Your task to perform on an android device: Open Maps and search for coffee Image 0: 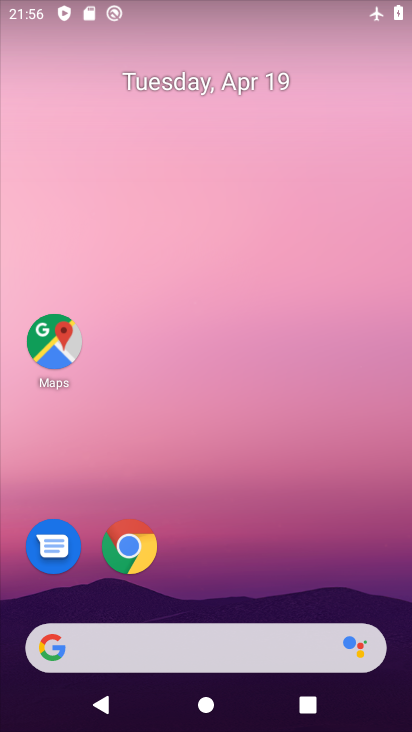
Step 0: click (54, 359)
Your task to perform on an android device: Open Maps and search for coffee Image 1: 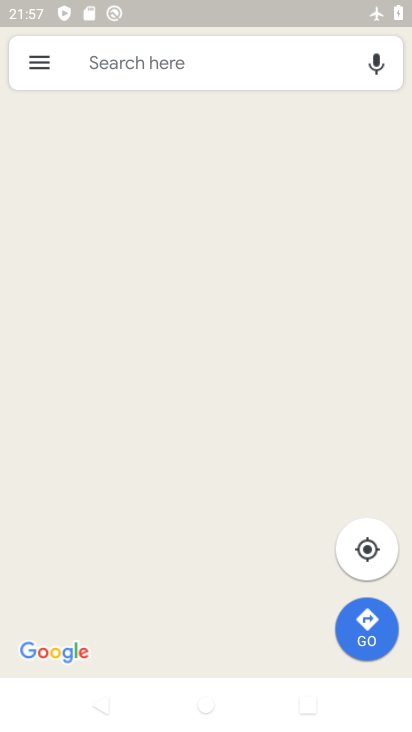
Step 1: click (165, 60)
Your task to perform on an android device: Open Maps and search for coffee Image 2: 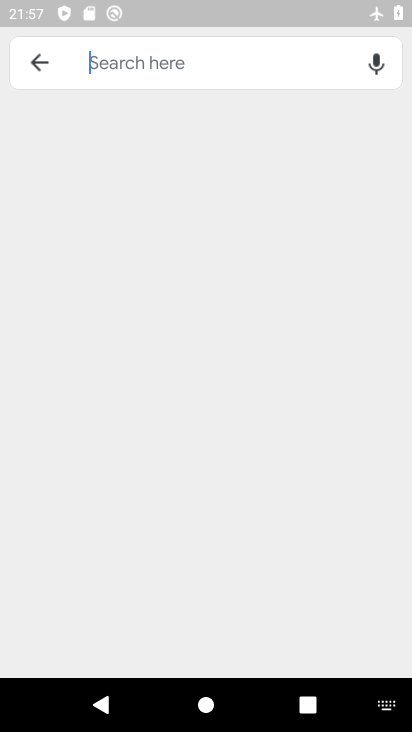
Step 2: task complete